Your task to perform on an android device: manage bookmarks in the chrome app Image 0: 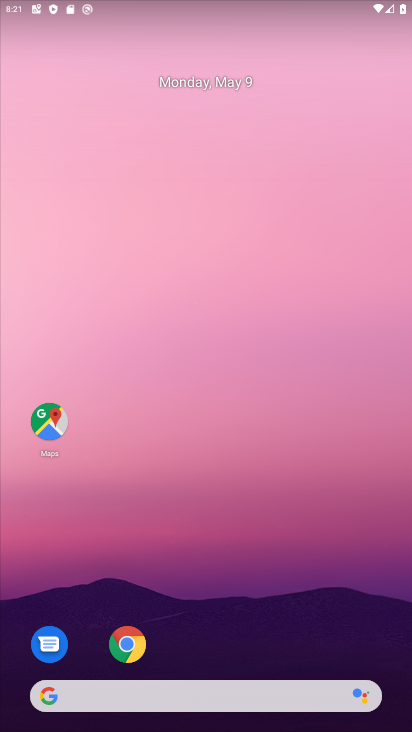
Step 0: click (120, 650)
Your task to perform on an android device: manage bookmarks in the chrome app Image 1: 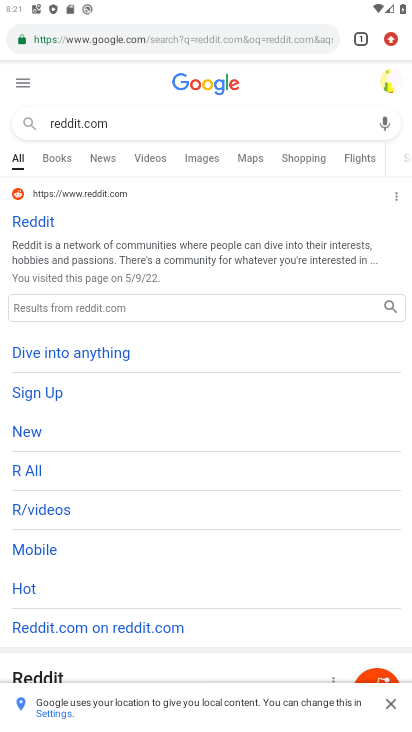
Step 1: click (393, 39)
Your task to perform on an android device: manage bookmarks in the chrome app Image 2: 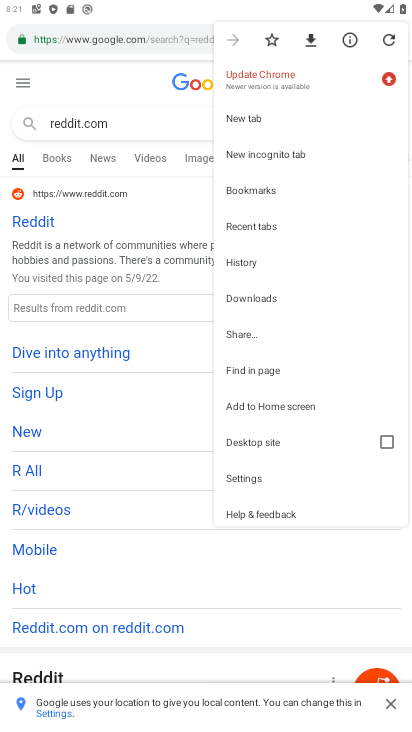
Step 2: click (250, 187)
Your task to perform on an android device: manage bookmarks in the chrome app Image 3: 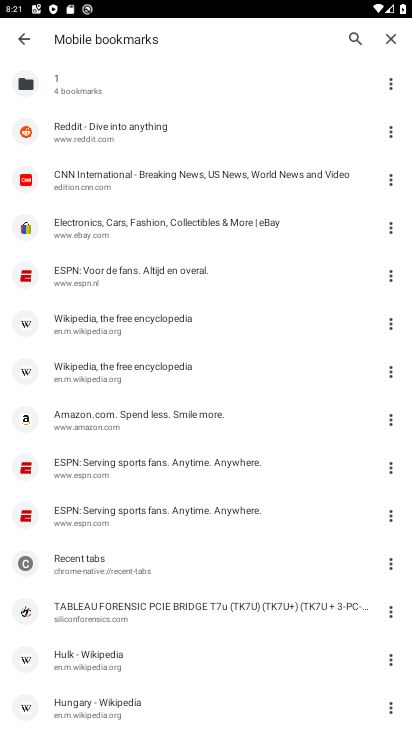
Step 3: click (388, 129)
Your task to perform on an android device: manage bookmarks in the chrome app Image 4: 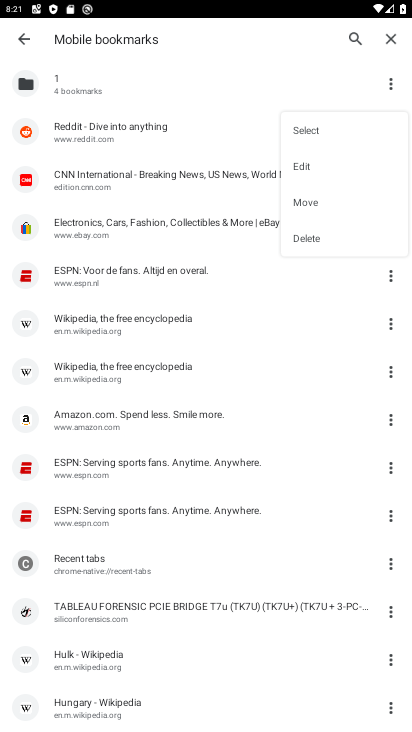
Step 4: click (313, 161)
Your task to perform on an android device: manage bookmarks in the chrome app Image 5: 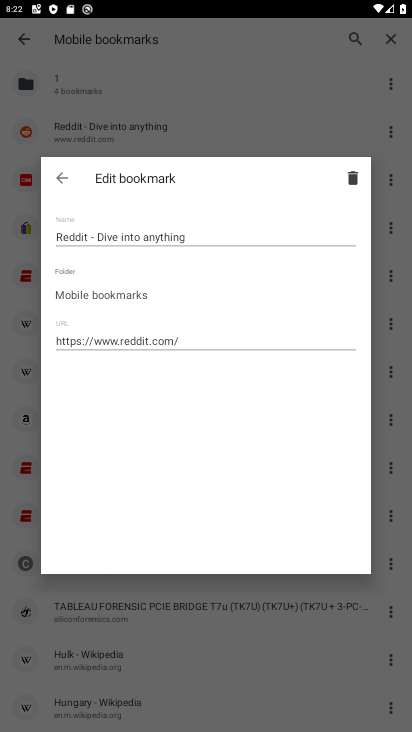
Step 5: task complete